Your task to perform on an android device: turn on sleep mode Image 0: 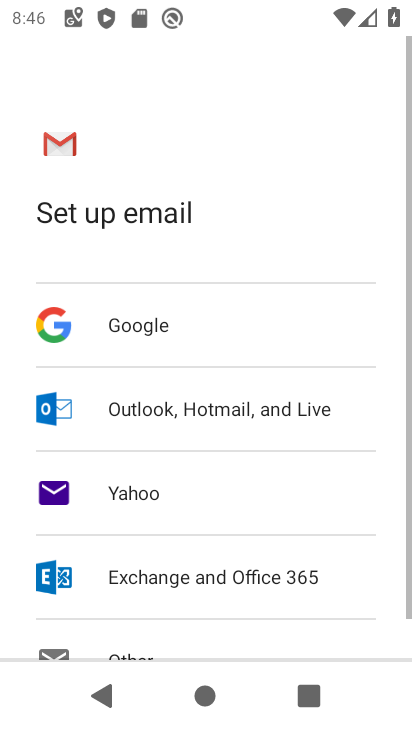
Step 0: press home button
Your task to perform on an android device: turn on sleep mode Image 1: 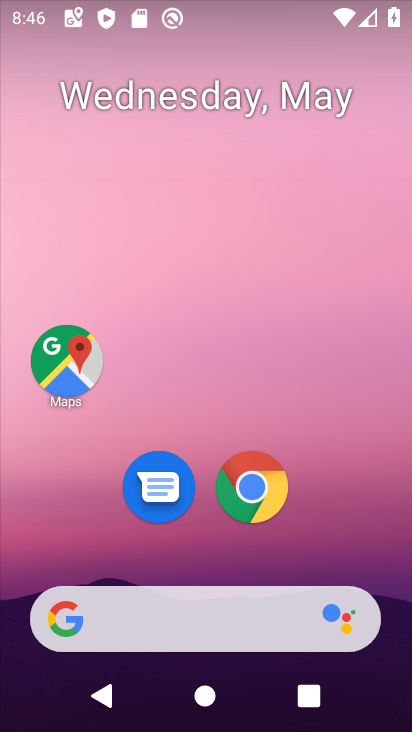
Step 1: drag from (346, 520) to (151, 19)
Your task to perform on an android device: turn on sleep mode Image 2: 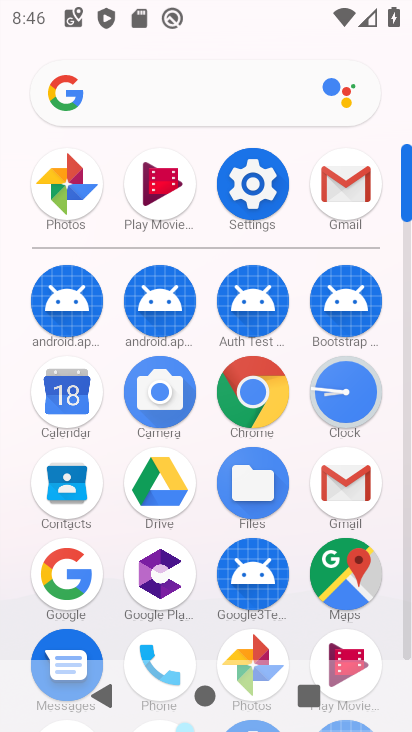
Step 2: click (259, 183)
Your task to perform on an android device: turn on sleep mode Image 3: 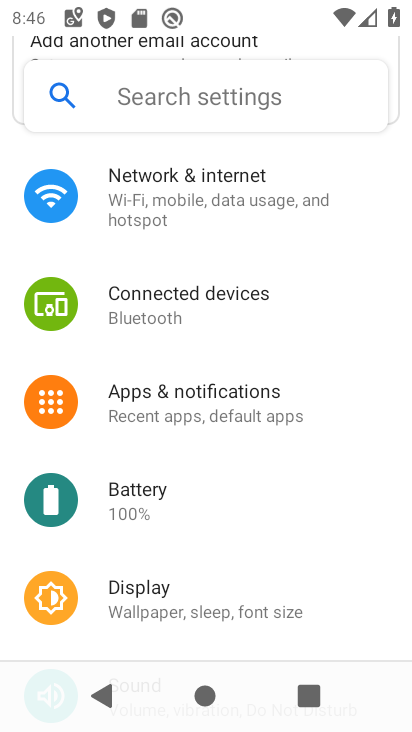
Step 3: click (146, 599)
Your task to perform on an android device: turn on sleep mode Image 4: 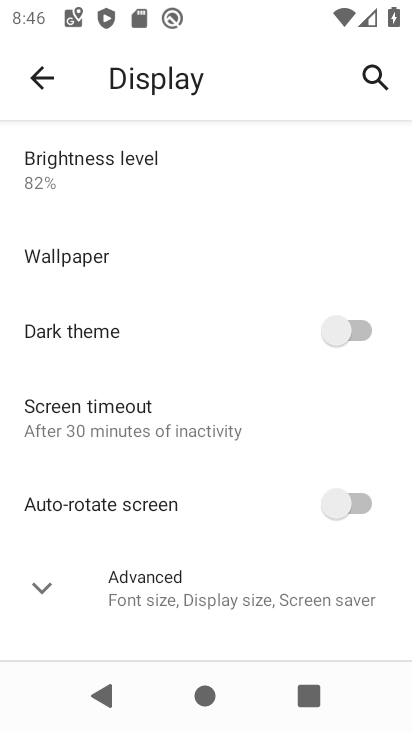
Step 4: task complete